Your task to perform on an android device: turn off data saver in the chrome app Image 0: 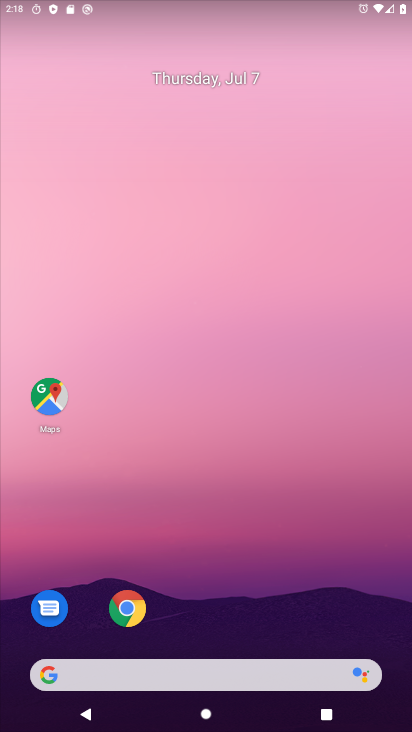
Step 0: click (130, 606)
Your task to perform on an android device: turn off data saver in the chrome app Image 1: 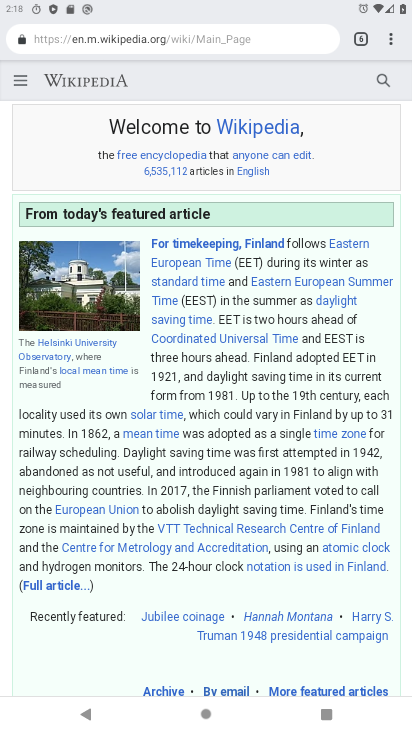
Step 1: click (390, 41)
Your task to perform on an android device: turn off data saver in the chrome app Image 2: 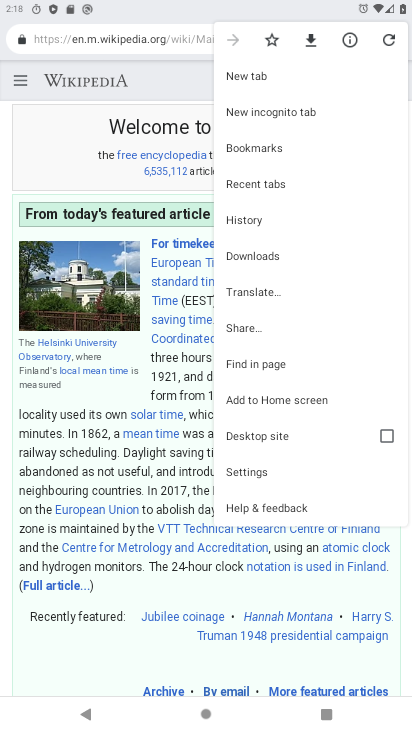
Step 2: click (243, 470)
Your task to perform on an android device: turn off data saver in the chrome app Image 3: 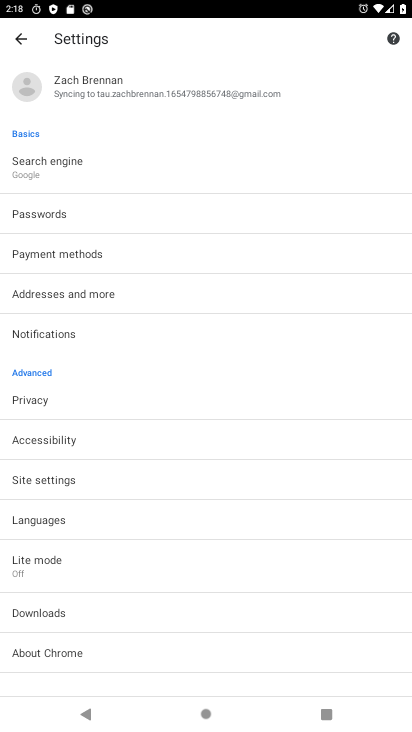
Step 3: click (34, 561)
Your task to perform on an android device: turn off data saver in the chrome app Image 4: 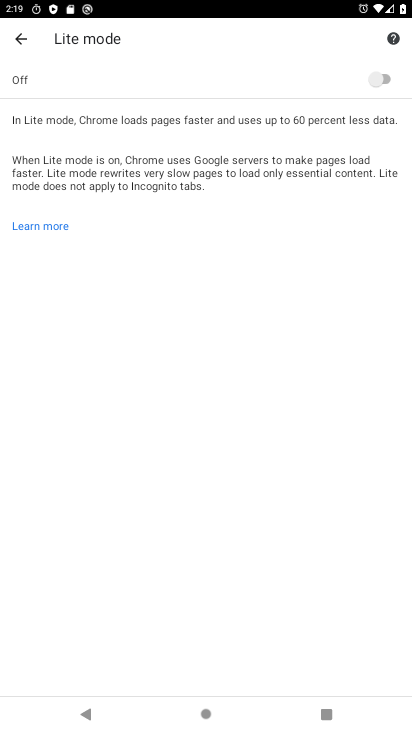
Step 4: task complete